Your task to perform on an android device: Open calendar and show me the first week of next month Image 0: 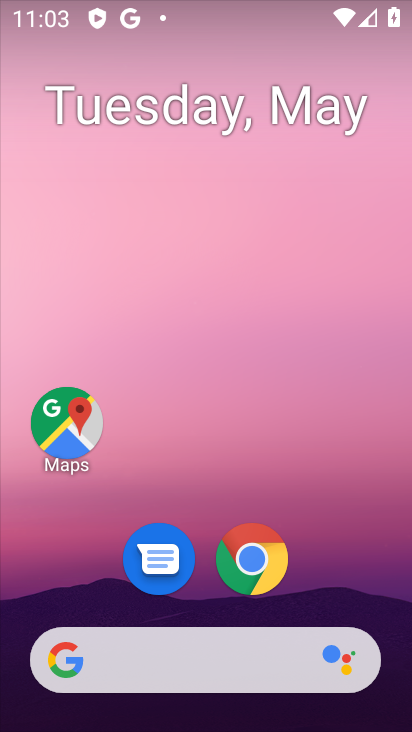
Step 0: drag from (332, 608) to (274, 120)
Your task to perform on an android device: Open calendar and show me the first week of next month Image 1: 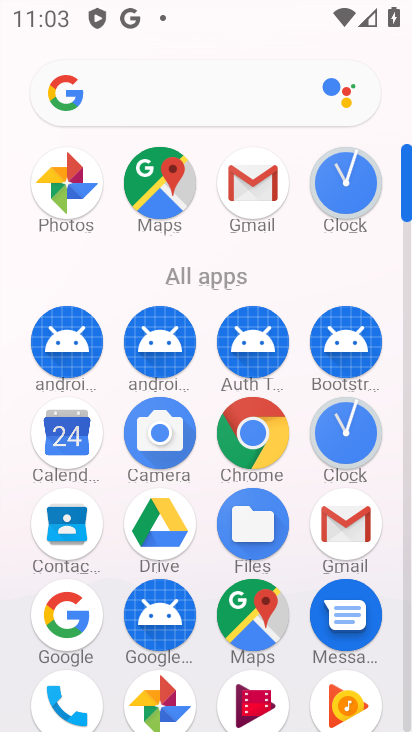
Step 1: click (66, 455)
Your task to perform on an android device: Open calendar and show me the first week of next month Image 2: 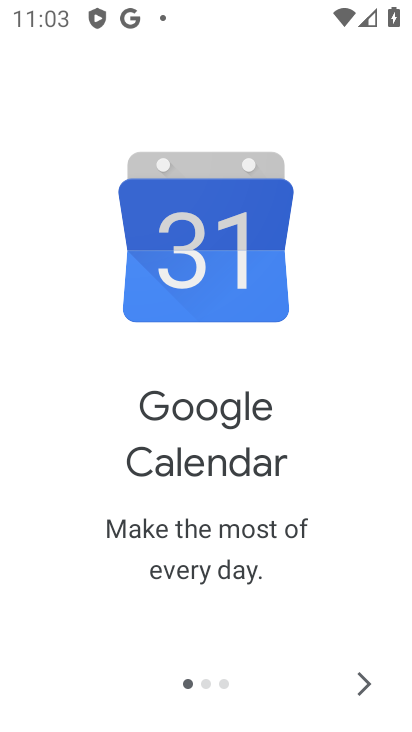
Step 2: click (377, 683)
Your task to perform on an android device: Open calendar and show me the first week of next month Image 3: 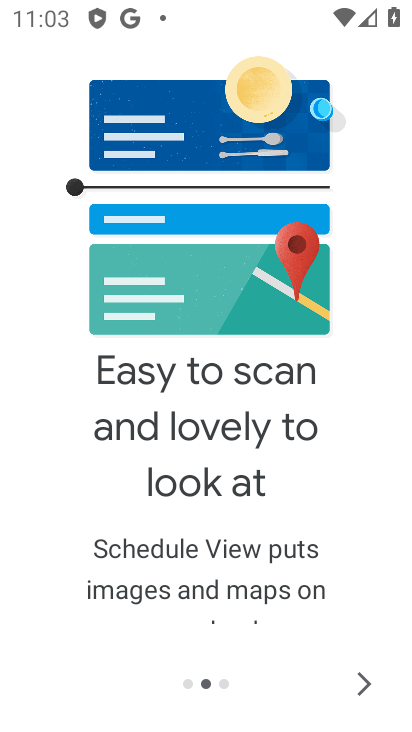
Step 3: click (377, 683)
Your task to perform on an android device: Open calendar and show me the first week of next month Image 4: 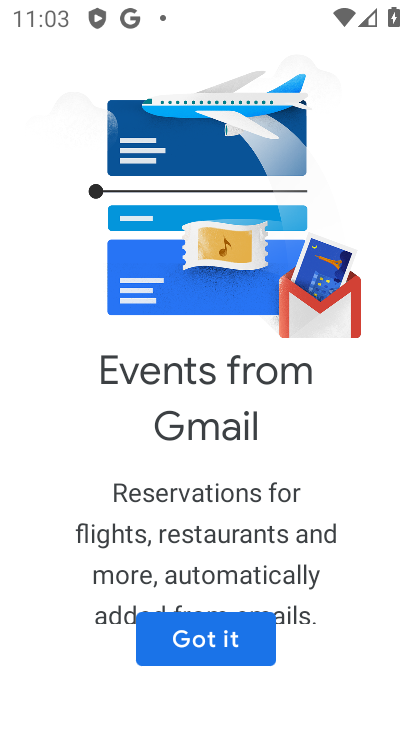
Step 4: click (215, 615)
Your task to perform on an android device: Open calendar and show me the first week of next month Image 5: 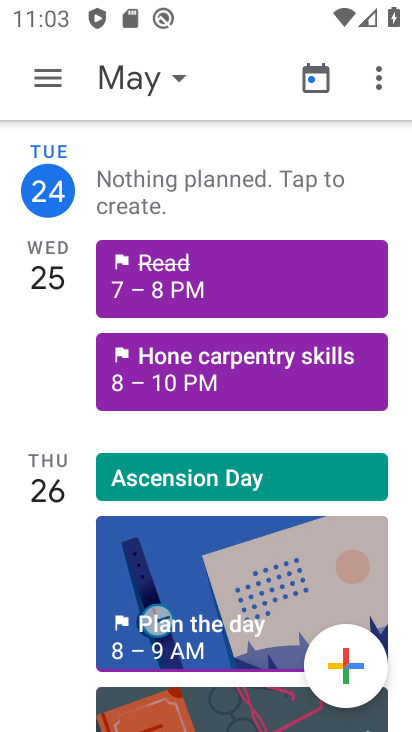
Step 5: click (139, 84)
Your task to perform on an android device: Open calendar and show me the first week of next month Image 6: 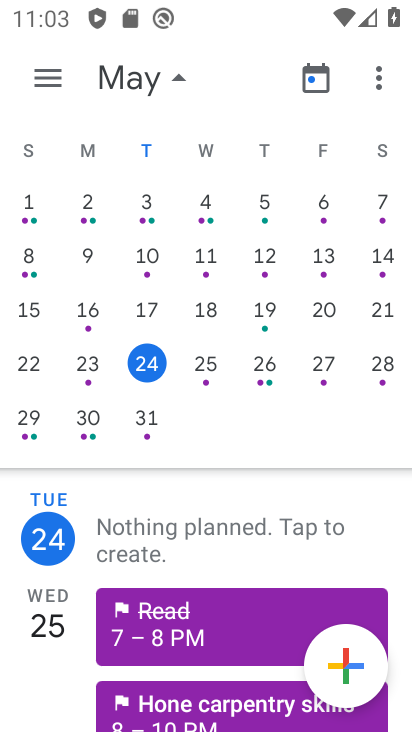
Step 6: drag from (388, 369) to (5, 507)
Your task to perform on an android device: Open calendar and show me the first week of next month Image 7: 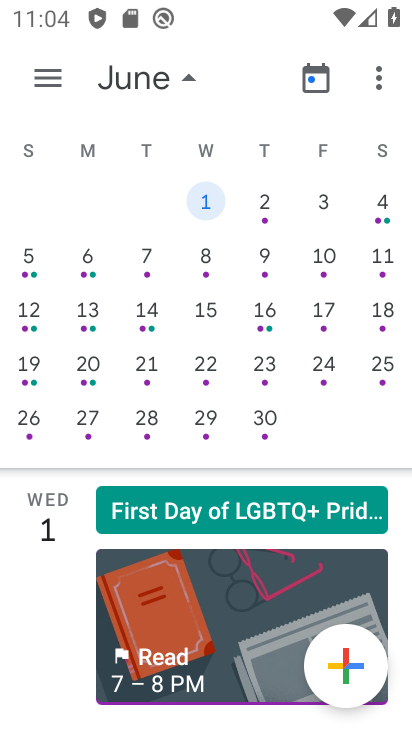
Step 7: click (73, 264)
Your task to perform on an android device: Open calendar and show me the first week of next month Image 8: 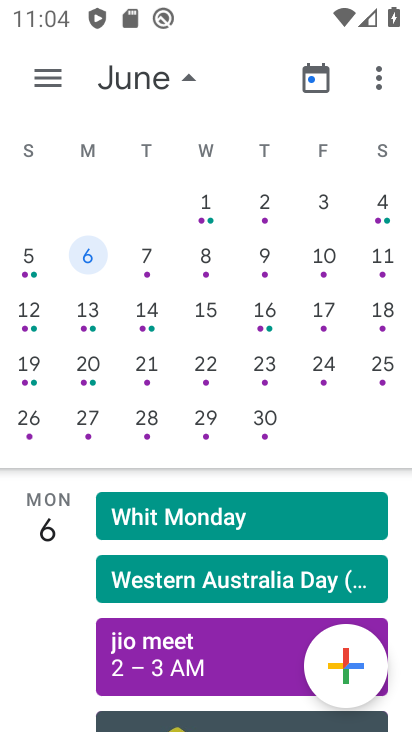
Step 8: task complete